Your task to perform on an android device: toggle airplane mode Image 0: 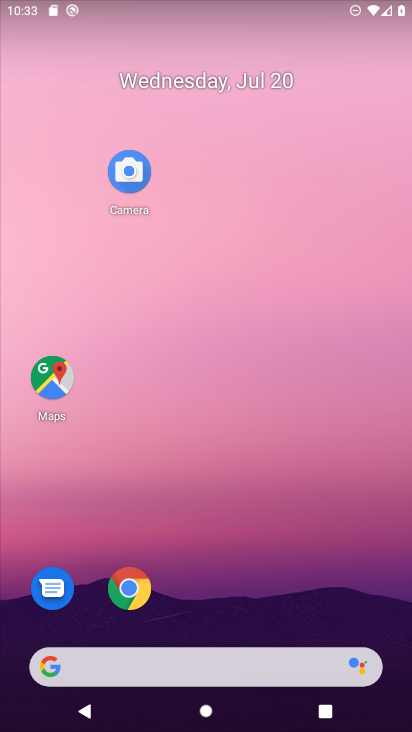
Step 0: press home button
Your task to perform on an android device: toggle airplane mode Image 1: 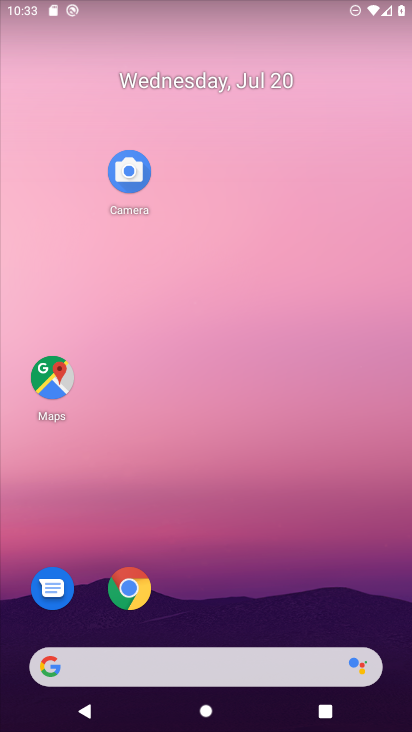
Step 1: drag from (297, 1) to (333, 562)
Your task to perform on an android device: toggle airplane mode Image 2: 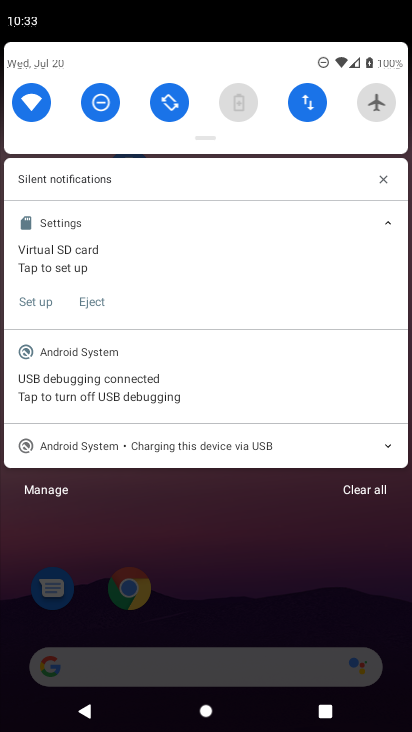
Step 2: click (381, 101)
Your task to perform on an android device: toggle airplane mode Image 3: 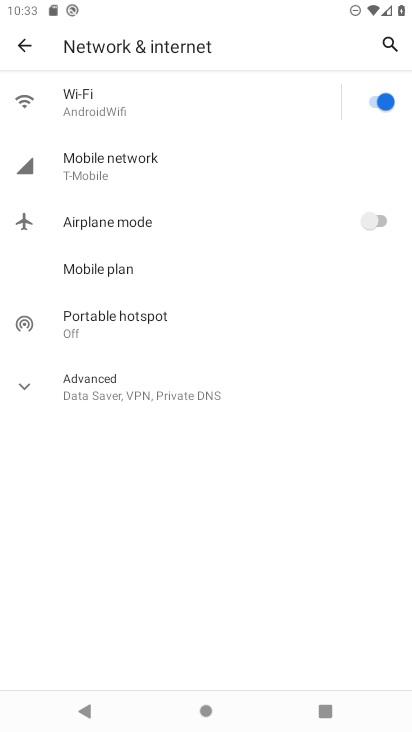
Step 3: click (377, 219)
Your task to perform on an android device: toggle airplane mode Image 4: 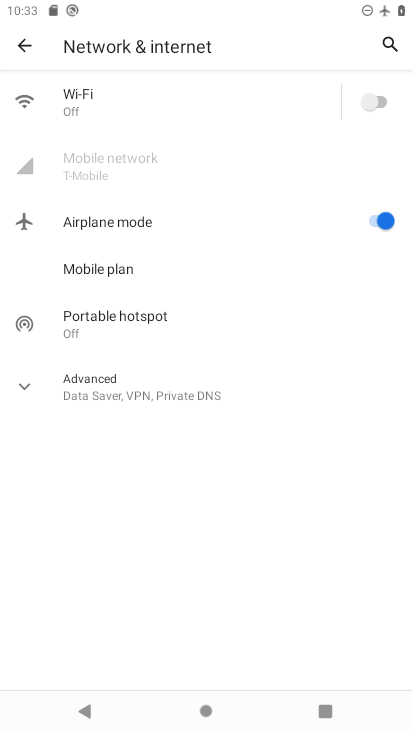
Step 4: task complete